Your task to perform on an android device: snooze an email in the gmail app Image 0: 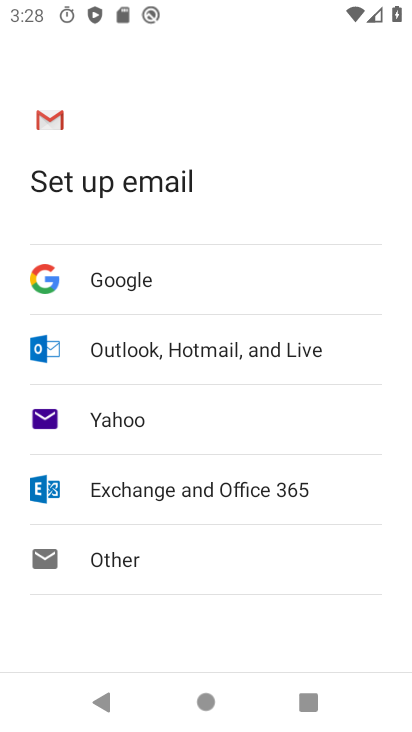
Step 0: press home button
Your task to perform on an android device: snooze an email in the gmail app Image 1: 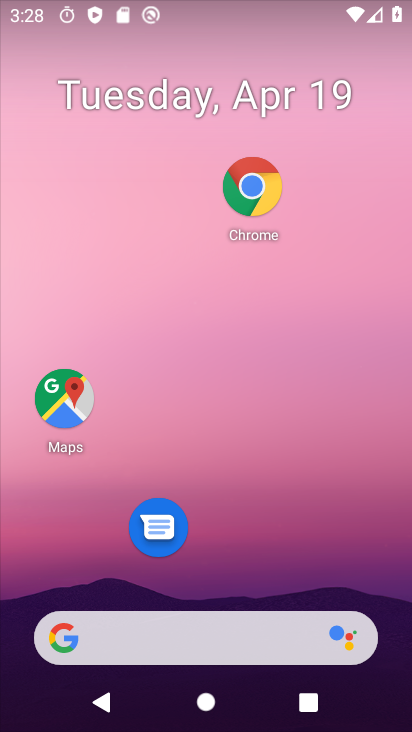
Step 1: drag from (229, 554) to (262, 192)
Your task to perform on an android device: snooze an email in the gmail app Image 2: 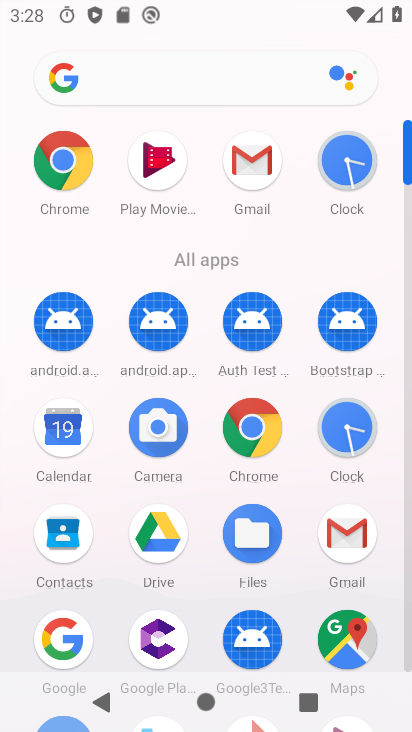
Step 2: click (250, 158)
Your task to perform on an android device: snooze an email in the gmail app Image 3: 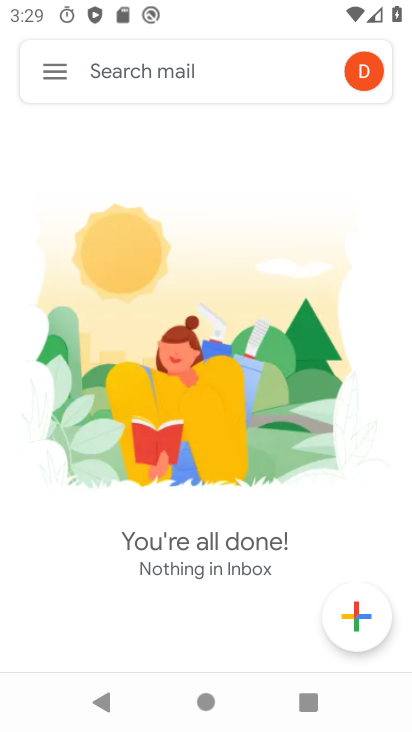
Step 3: click (52, 75)
Your task to perform on an android device: snooze an email in the gmail app Image 4: 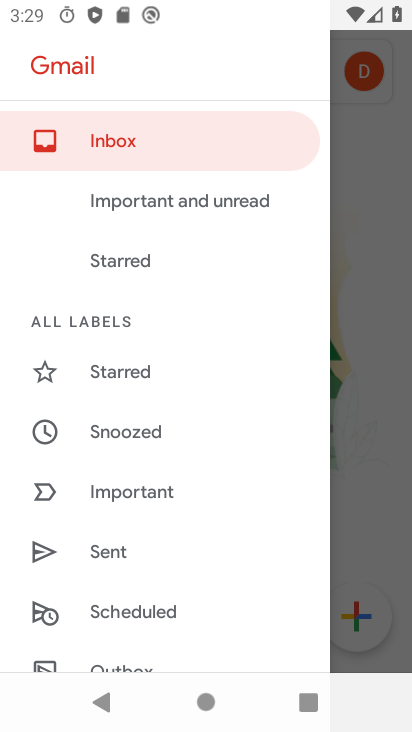
Step 4: click (135, 428)
Your task to perform on an android device: snooze an email in the gmail app Image 5: 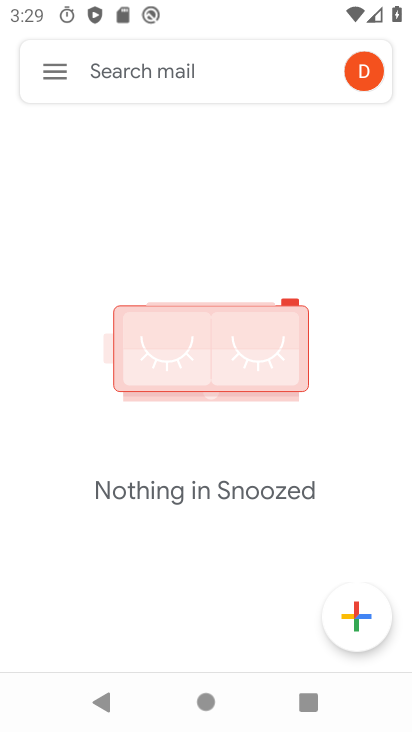
Step 5: task complete